Your task to perform on an android device: change text size in settings app Image 0: 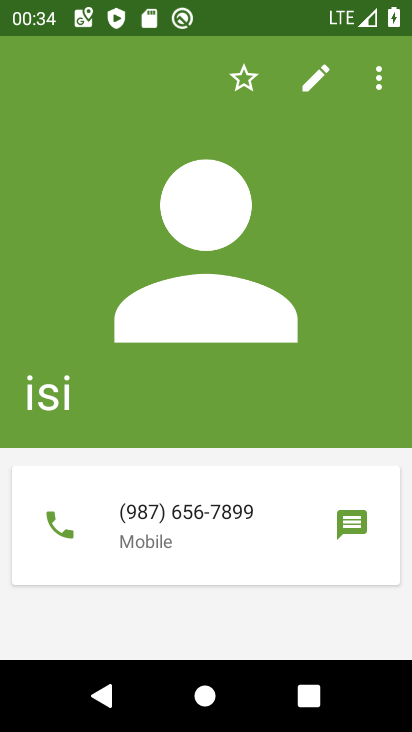
Step 0: press home button
Your task to perform on an android device: change text size in settings app Image 1: 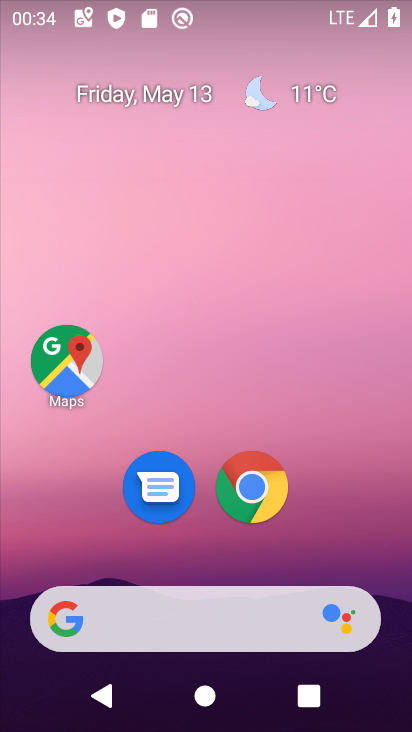
Step 1: drag from (215, 558) to (167, 2)
Your task to perform on an android device: change text size in settings app Image 2: 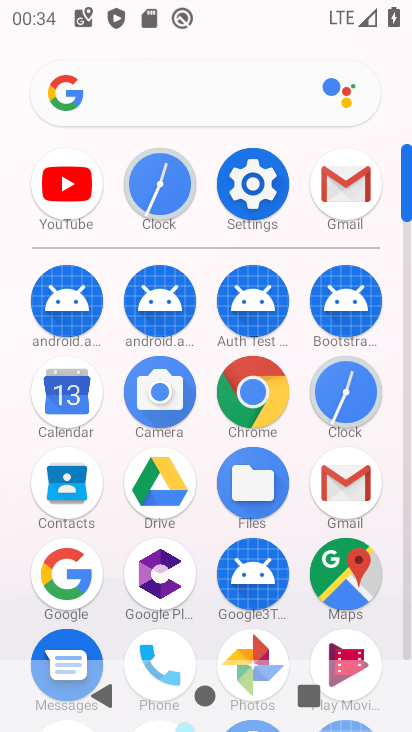
Step 2: click (258, 182)
Your task to perform on an android device: change text size in settings app Image 3: 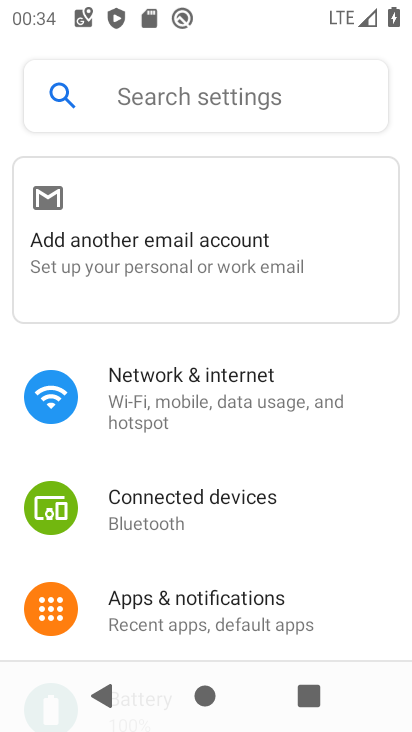
Step 3: drag from (176, 557) to (202, 204)
Your task to perform on an android device: change text size in settings app Image 4: 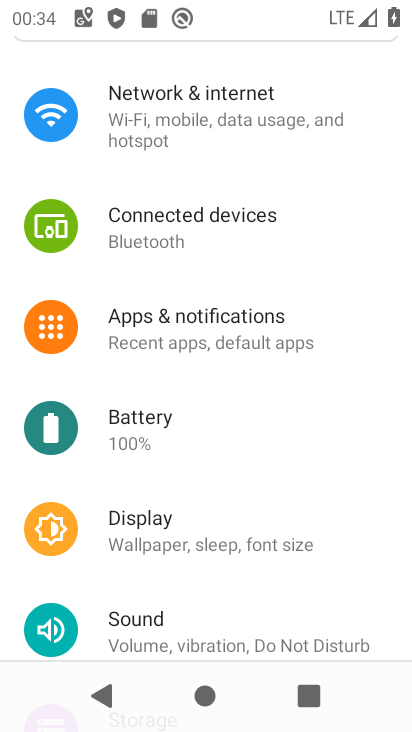
Step 4: click (184, 520)
Your task to perform on an android device: change text size in settings app Image 5: 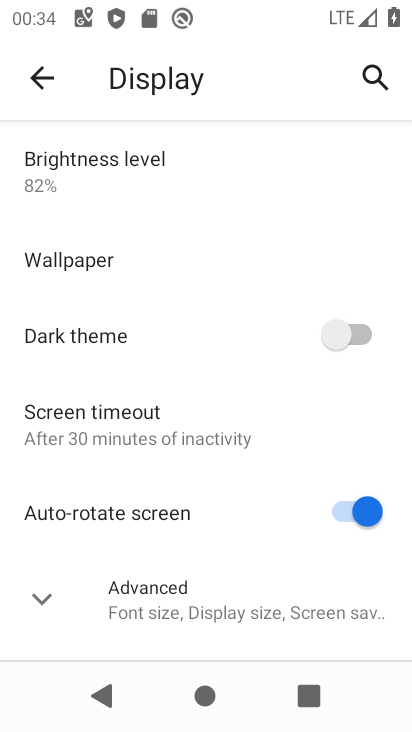
Step 5: click (222, 595)
Your task to perform on an android device: change text size in settings app Image 6: 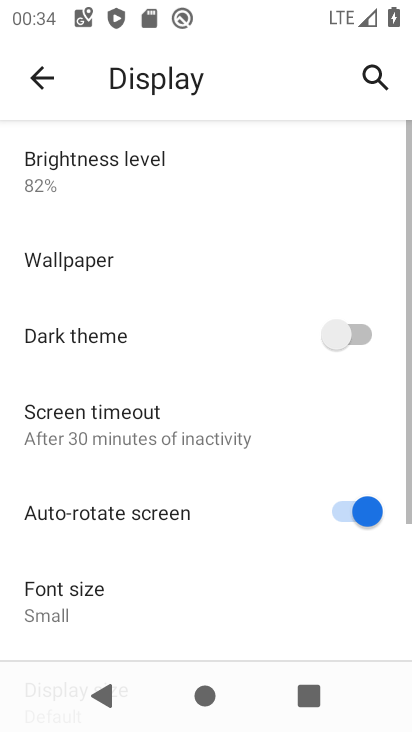
Step 6: drag from (222, 595) to (252, 252)
Your task to perform on an android device: change text size in settings app Image 7: 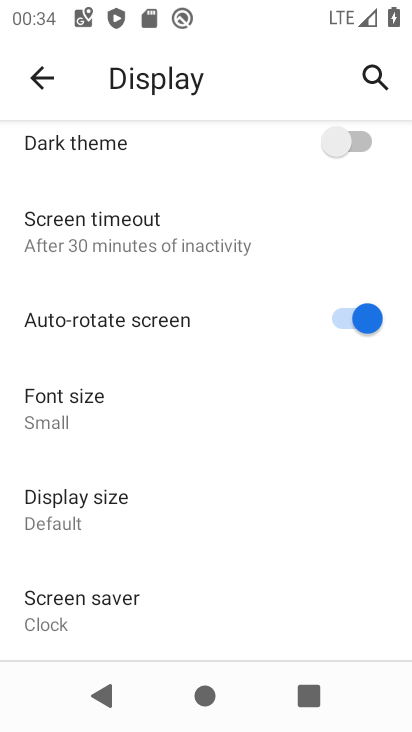
Step 7: click (75, 417)
Your task to perform on an android device: change text size in settings app Image 8: 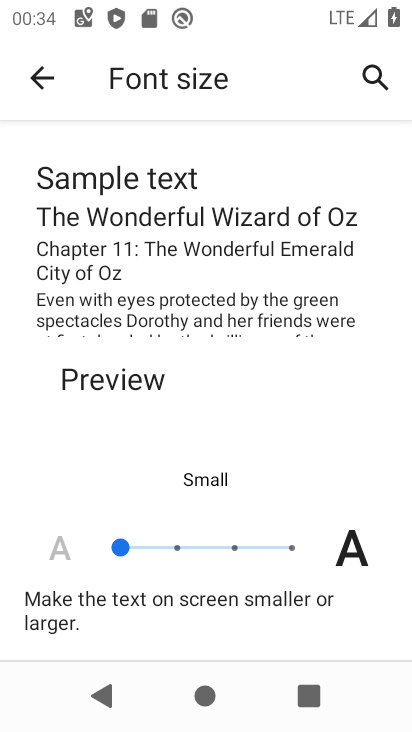
Step 8: click (177, 555)
Your task to perform on an android device: change text size in settings app Image 9: 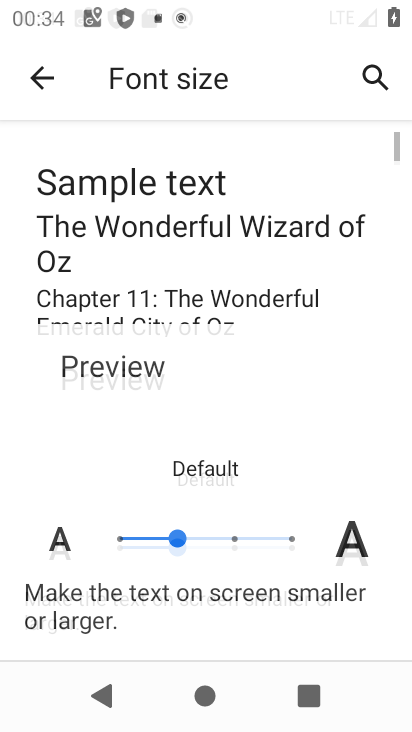
Step 9: task complete